Your task to perform on an android device: Open sound settings Image 0: 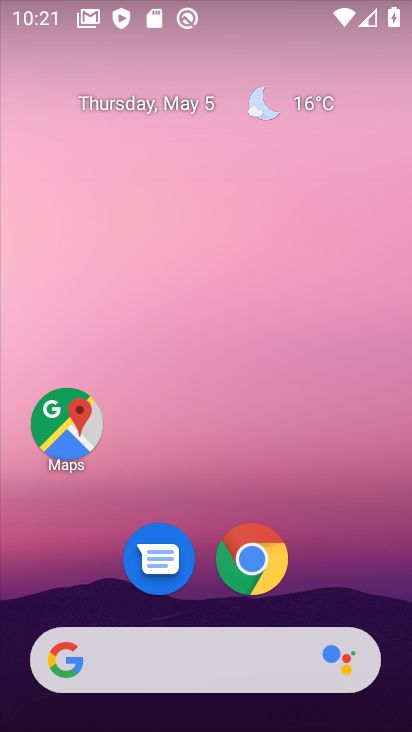
Step 0: drag from (341, 575) to (276, 252)
Your task to perform on an android device: Open sound settings Image 1: 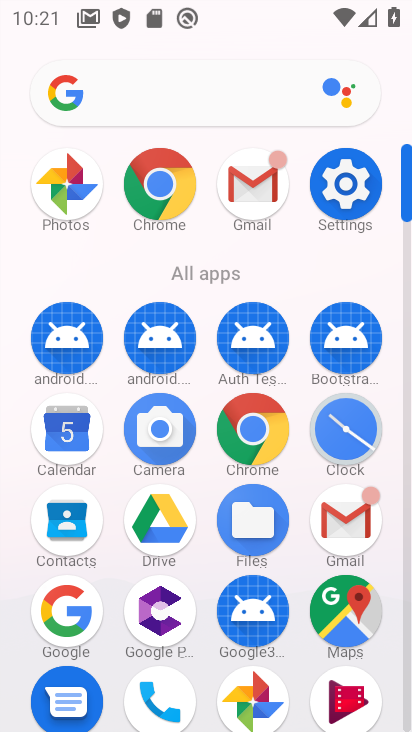
Step 1: click (336, 194)
Your task to perform on an android device: Open sound settings Image 2: 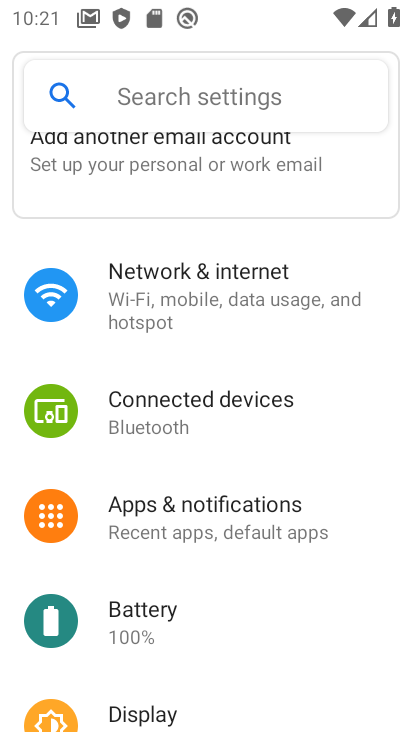
Step 2: drag from (275, 657) to (229, 355)
Your task to perform on an android device: Open sound settings Image 3: 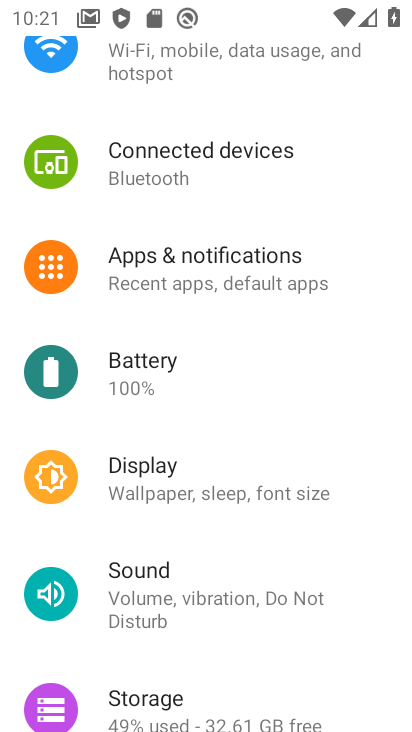
Step 3: click (286, 596)
Your task to perform on an android device: Open sound settings Image 4: 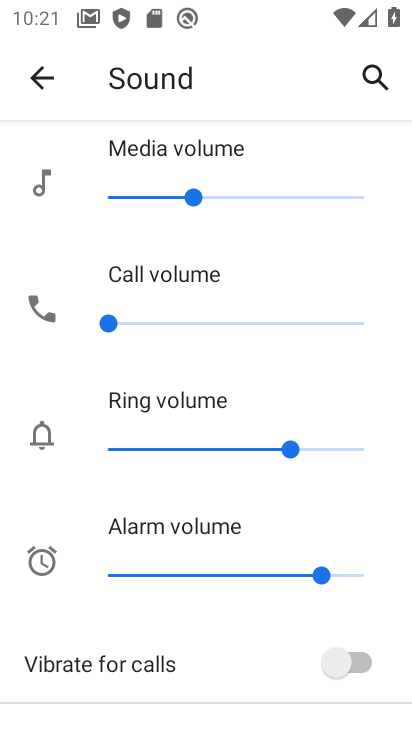
Step 4: task complete